Your task to perform on an android device: turn off wifi Image 0: 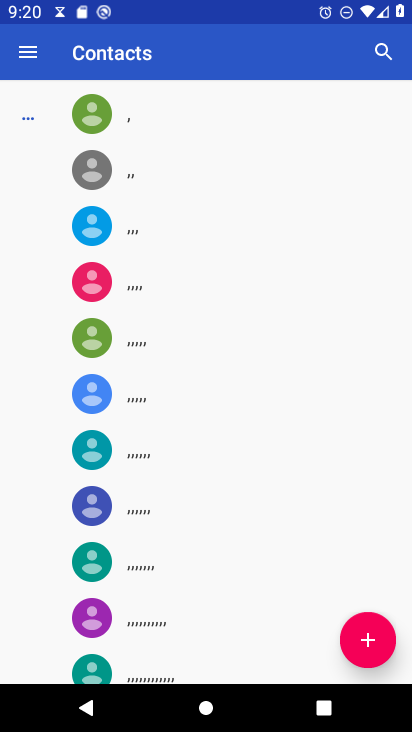
Step 0: press home button
Your task to perform on an android device: turn off wifi Image 1: 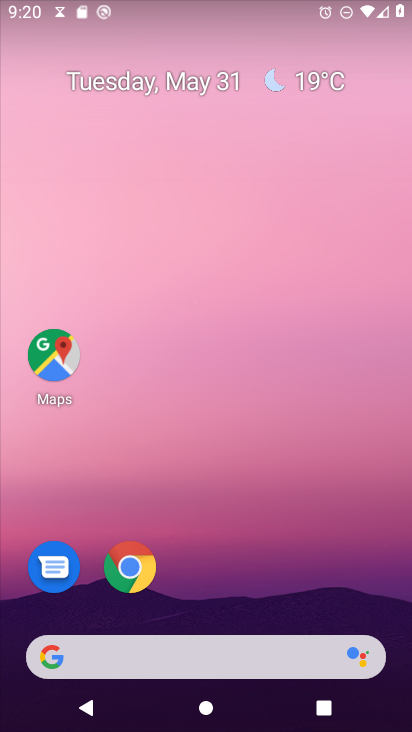
Step 1: drag from (220, 648) to (220, 201)
Your task to perform on an android device: turn off wifi Image 2: 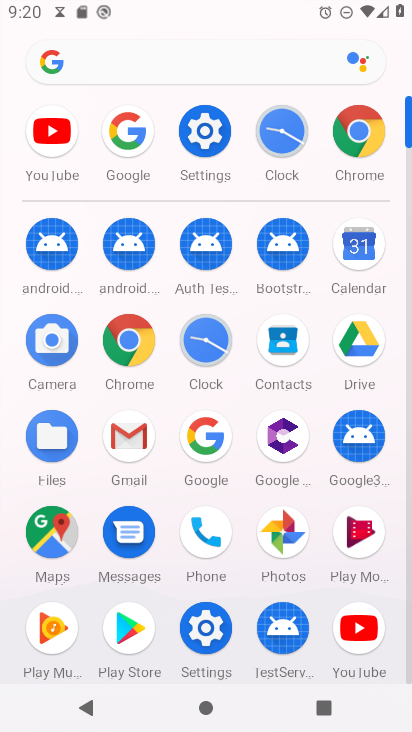
Step 2: click (205, 133)
Your task to perform on an android device: turn off wifi Image 3: 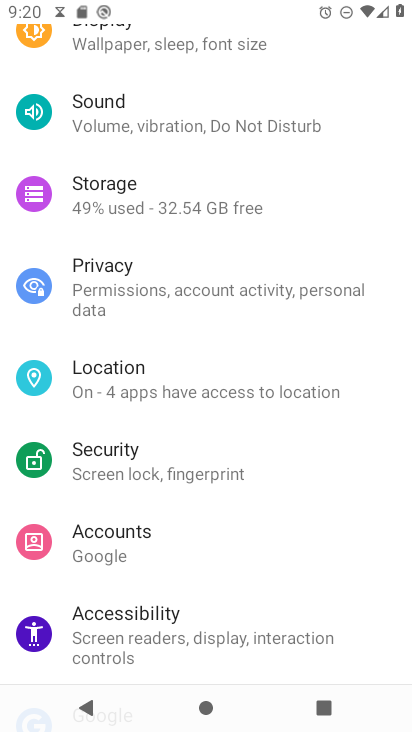
Step 3: drag from (229, 63) to (219, 480)
Your task to perform on an android device: turn off wifi Image 4: 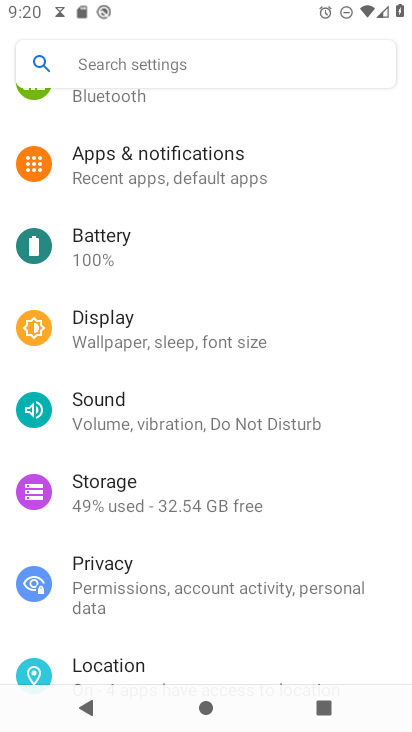
Step 4: drag from (223, 116) to (232, 515)
Your task to perform on an android device: turn off wifi Image 5: 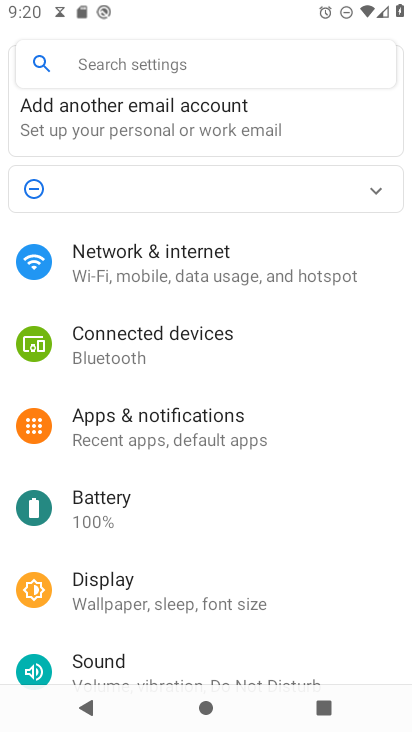
Step 5: click (198, 263)
Your task to perform on an android device: turn off wifi Image 6: 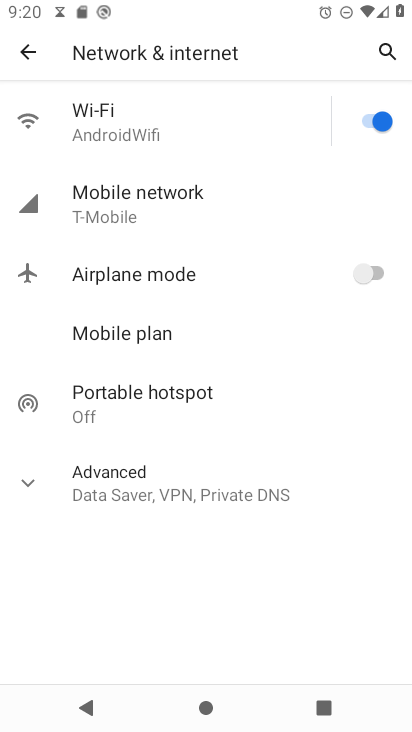
Step 6: click (371, 118)
Your task to perform on an android device: turn off wifi Image 7: 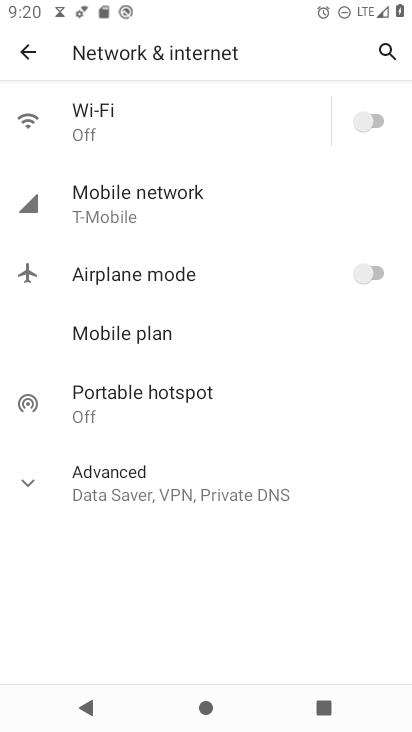
Step 7: task complete